Your task to perform on an android device: uninstall "VLC for Android" Image 0: 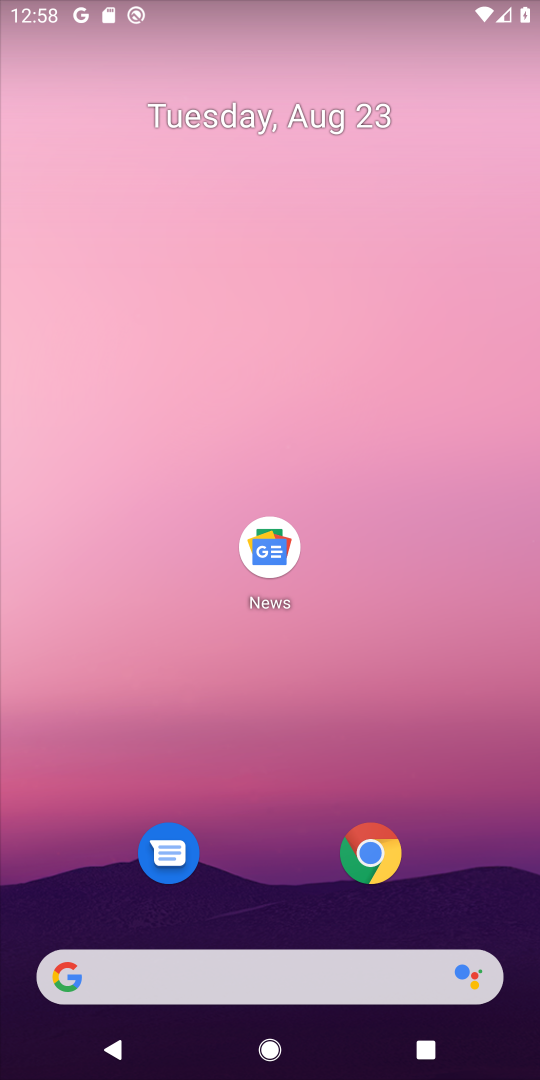
Step 0: drag from (491, 766) to (462, 200)
Your task to perform on an android device: uninstall "VLC for Android" Image 1: 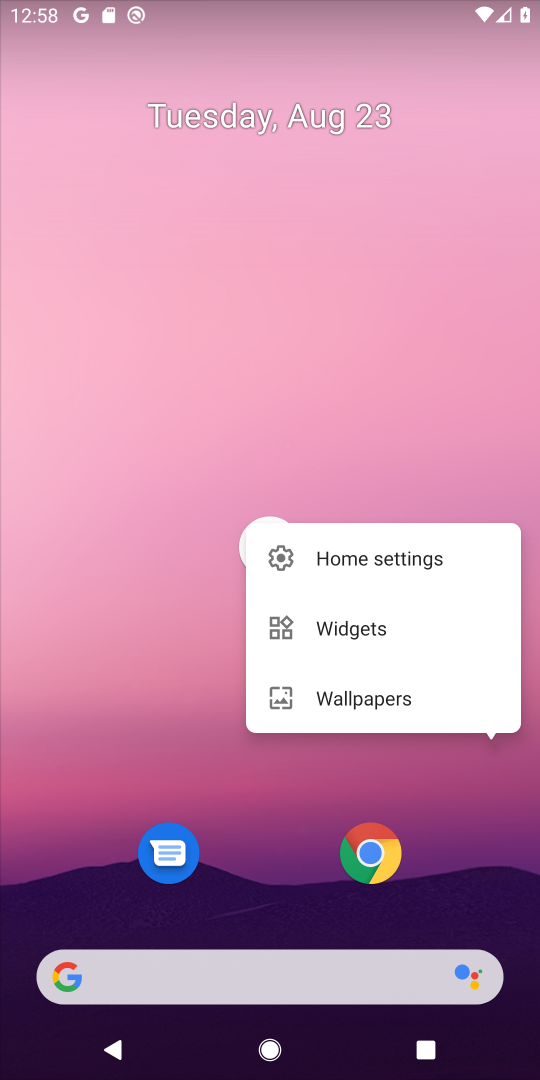
Step 1: click (516, 900)
Your task to perform on an android device: uninstall "VLC for Android" Image 2: 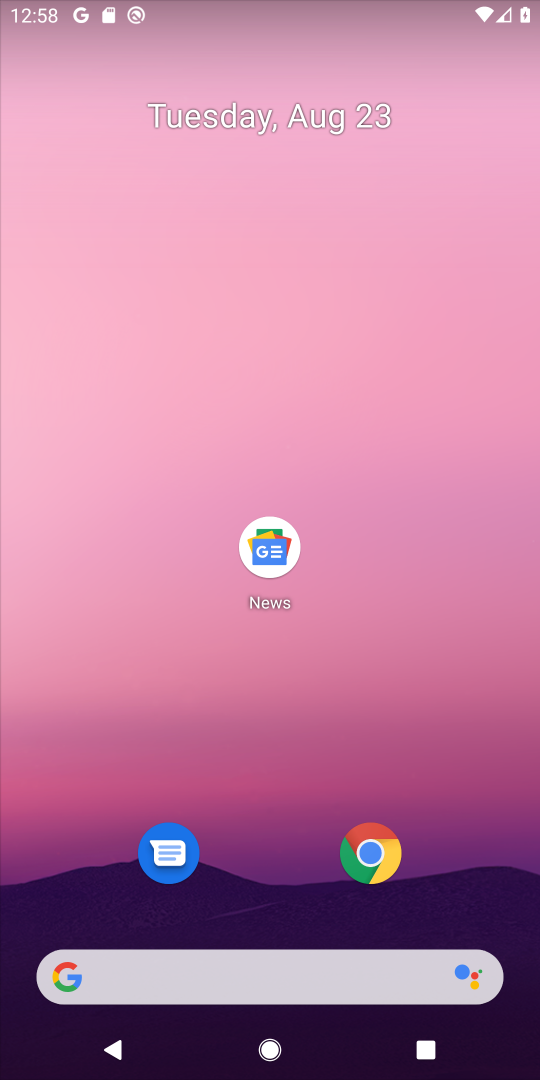
Step 2: drag from (506, 854) to (409, 98)
Your task to perform on an android device: uninstall "VLC for Android" Image 3: 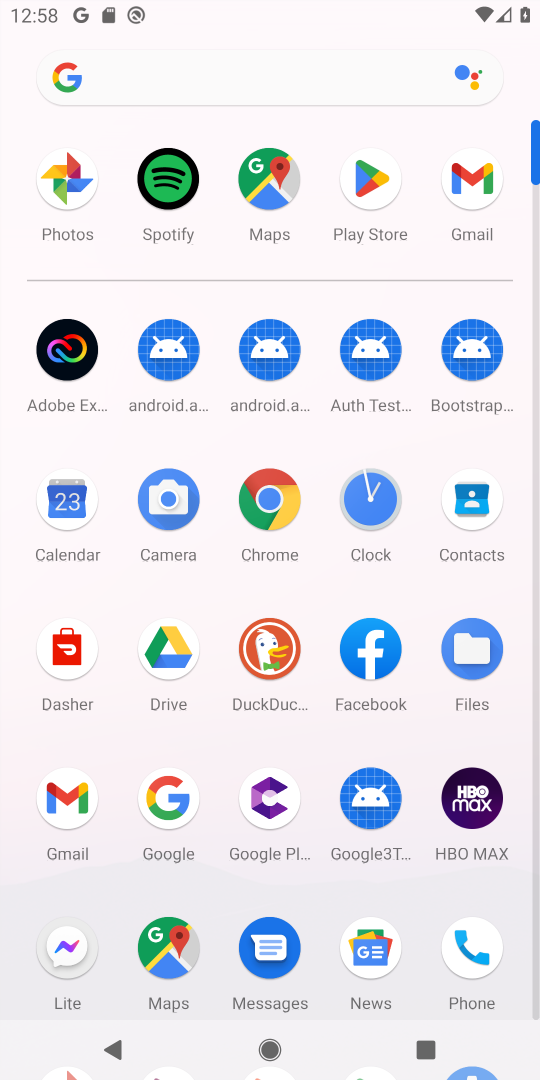
Step 3: drag from (418, 884) to (405, 446)
Your task to perform on an android device: uninstall "VLC for Android" Image 4: 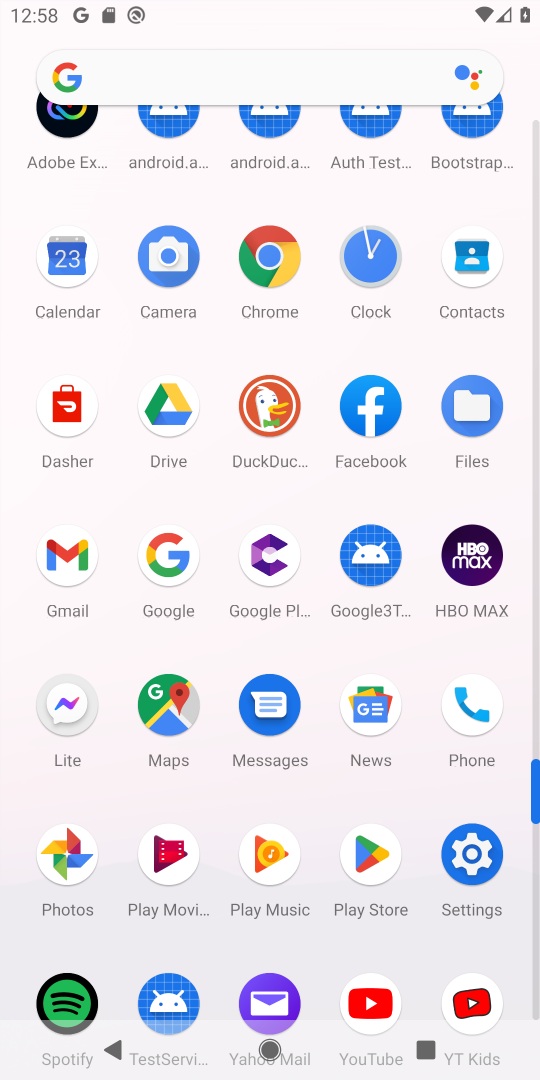
Step 4: click (369, 854)
Your task to perform on an android device: uninstall "VLC for Android" Image 5: 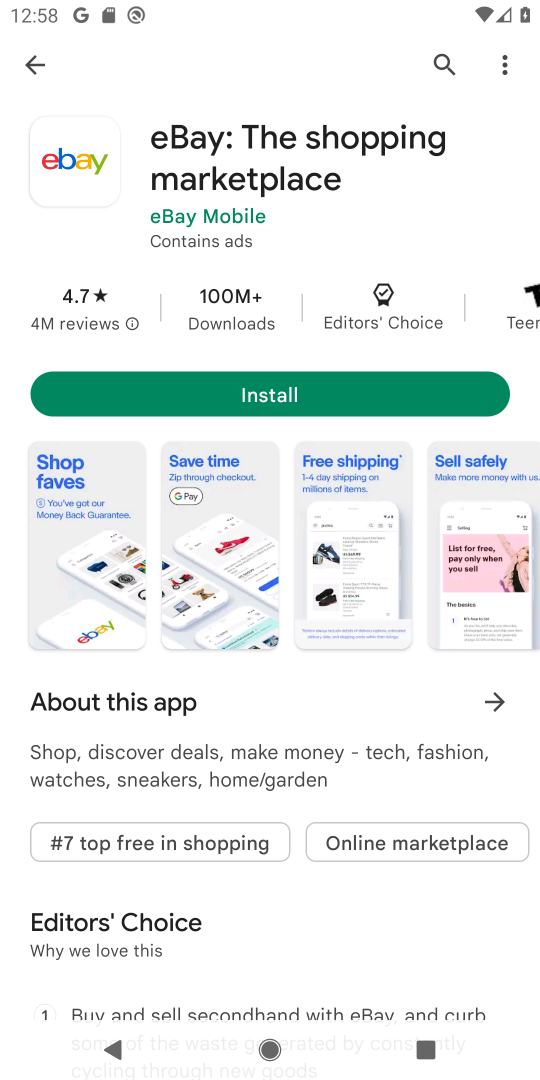
Step 5: click (438, 54)
Your task to perform on an android device: uninstall "VLC for Android" Image 6: 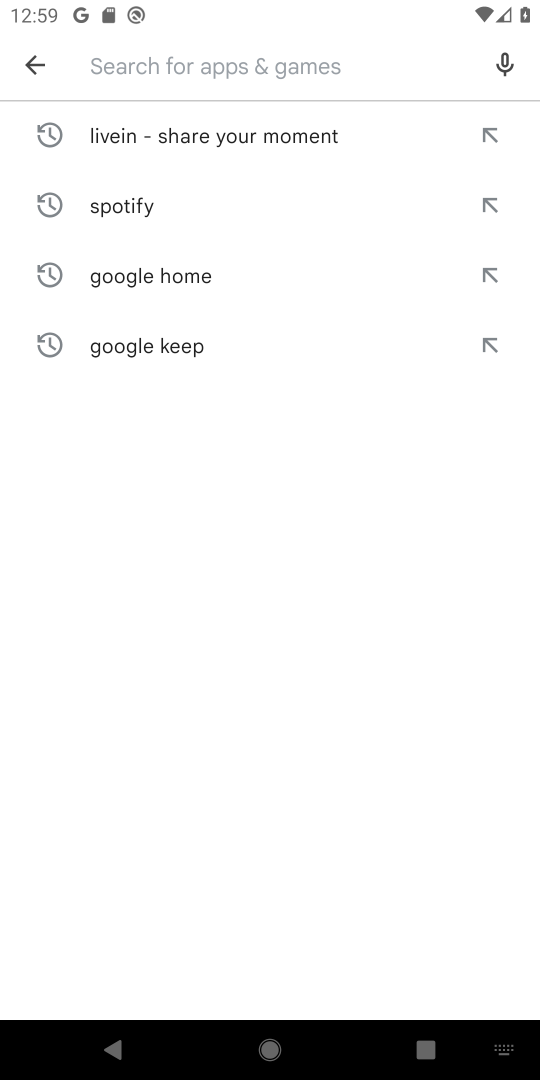
Step 6: type "VLC for Android"
Your task to perform on an android device: uninstall "VLC for Android" Image 7: 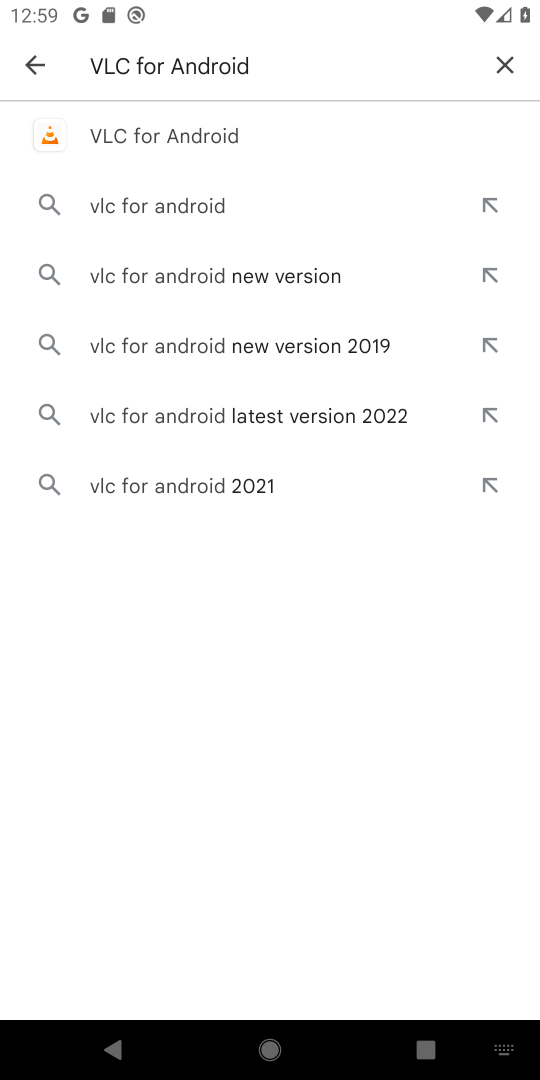
Step 7: click (155, 137)
Your task to perform on an android device: uninstall "VLC for Android" Image 8: 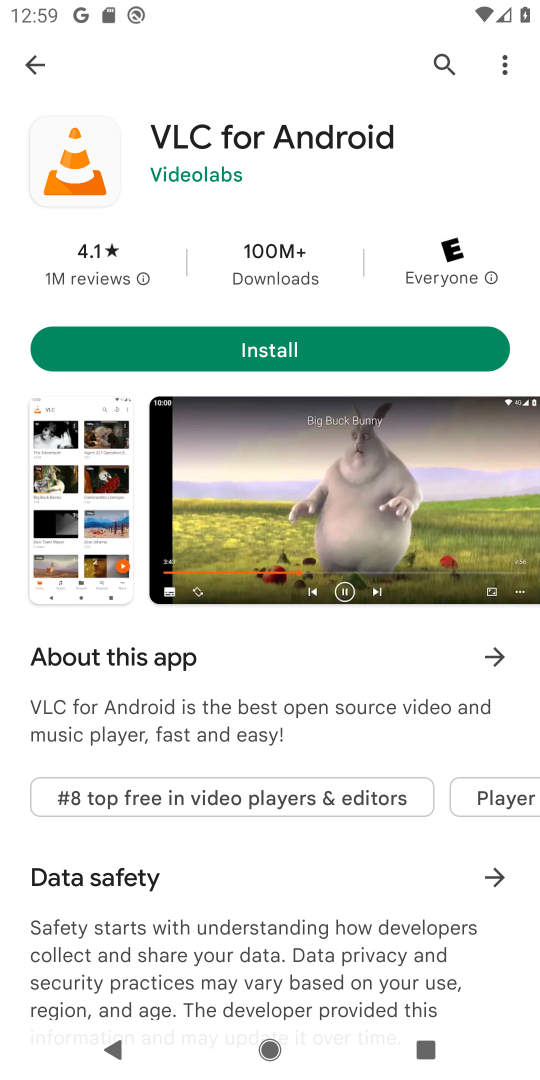
Step 8: task complete